Your task to perform on an android device: Turn on the flashlight Image 0: 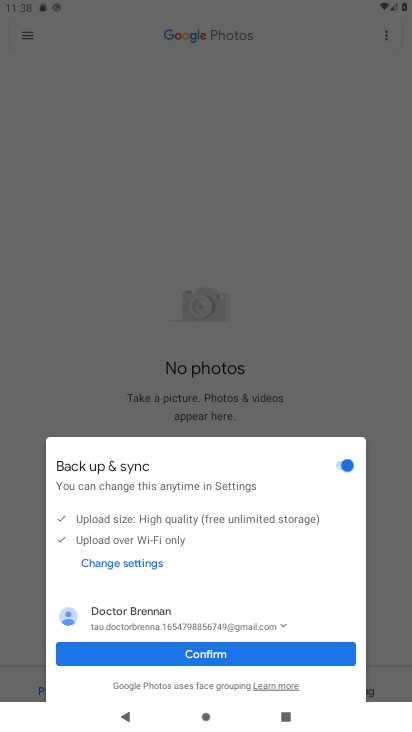
Step 0: press home button
Your task to perform on an android device: Turn on the flashlight Image 1: 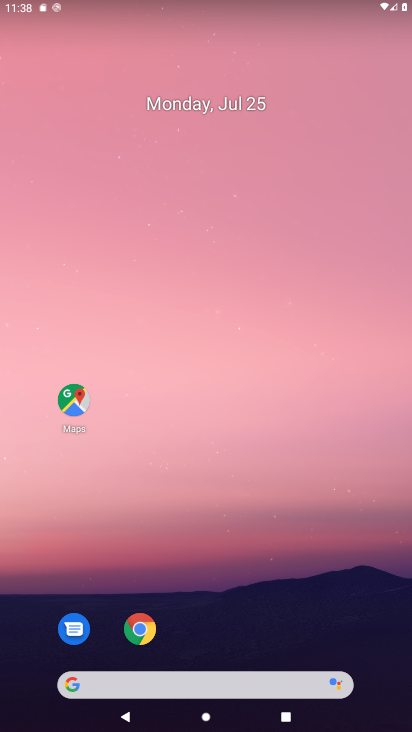
Step 1: task complete